Your task to perform on an android device: Toggle the flashlight Image 0: 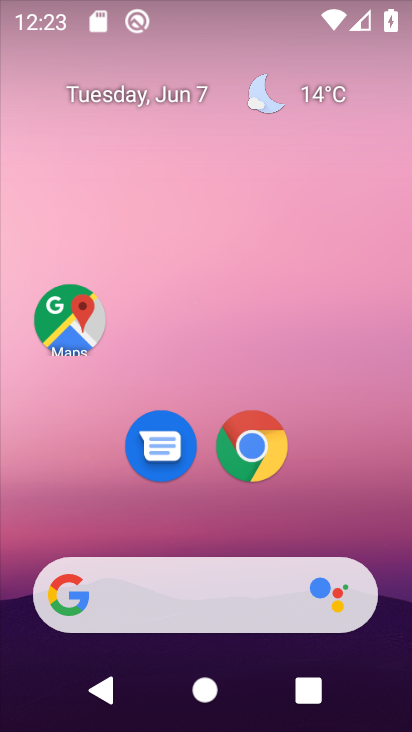
Step 0: drag from (199, 484) to (255, 8)
Your task to perform on an android device: Toggle the flashlight Image 1: 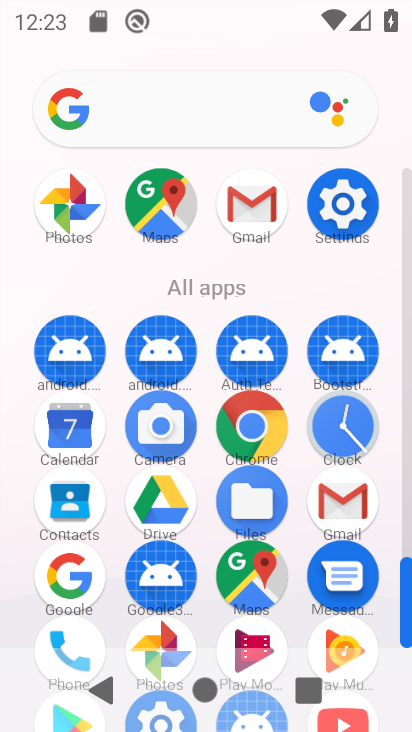
Step 1: click (332, 200)
Your task to perform on an android device: Toggle the flashlight Image 2: 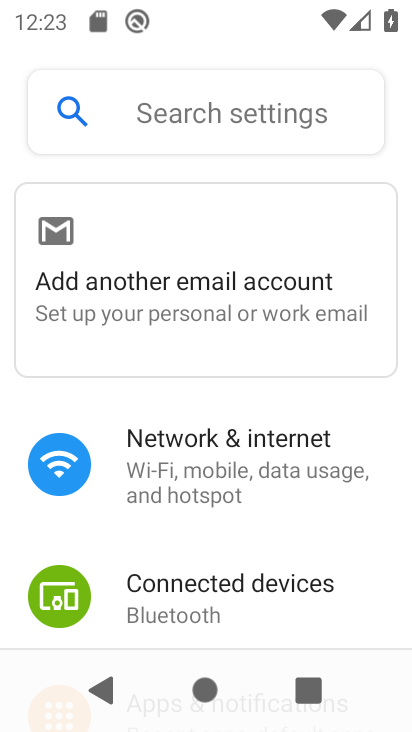
Step 2: click (196, 107)
Your task to perform on an android device: Toggle the flashlight Image 3: 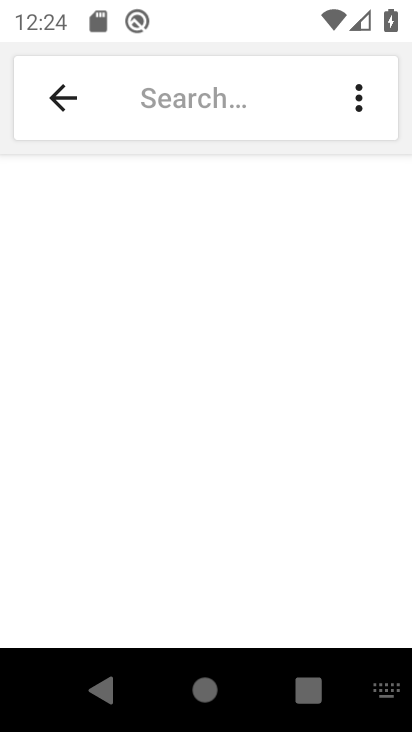
Step 3: type "flashlight"
Your task to perform on an android device: Toggle the flashlight Image 4: 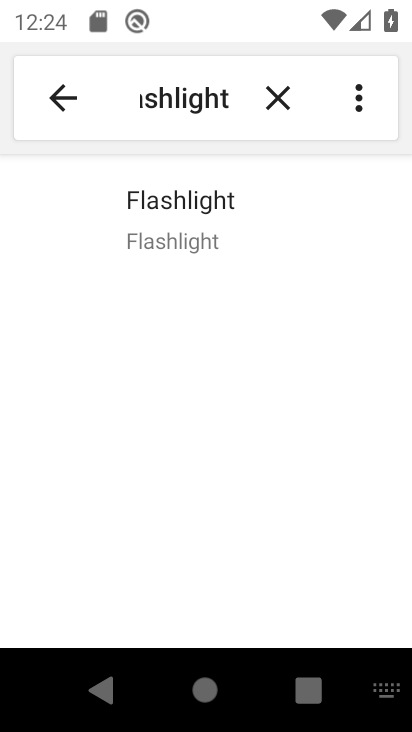
Step 4: click (238, 246)
Your task to perform on an android device: Toggle the flashlight Image 5: 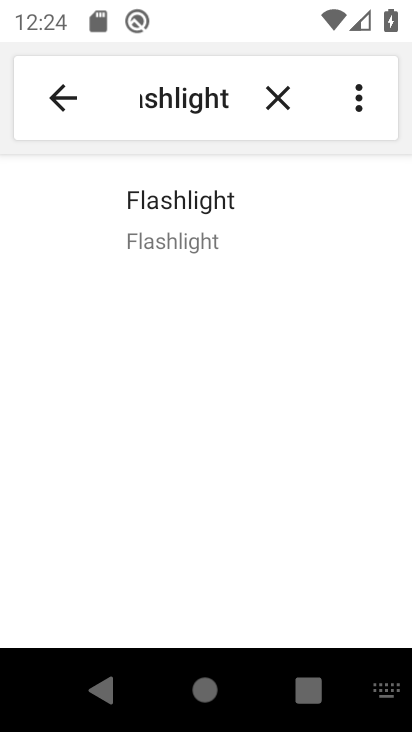
Step 5: task complete